Your task to perform on an android device: open the mobile data screen to see how much data has been used Image 0: 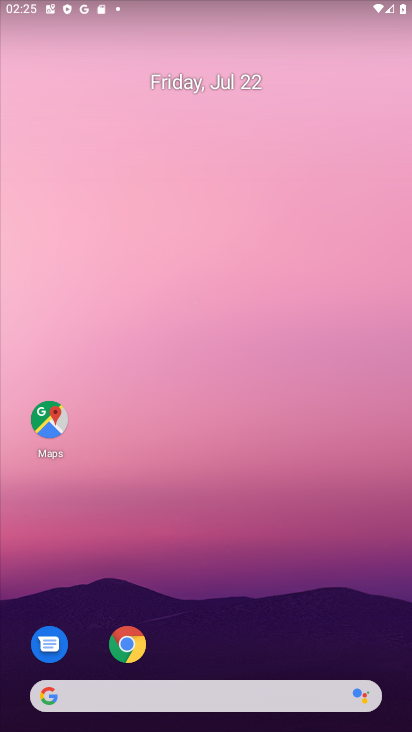
Step 0: drag from (76, 716) to (216, 38)
Your task to perform on an android device: open the mobile data screen to see how much data has been used Image 1: 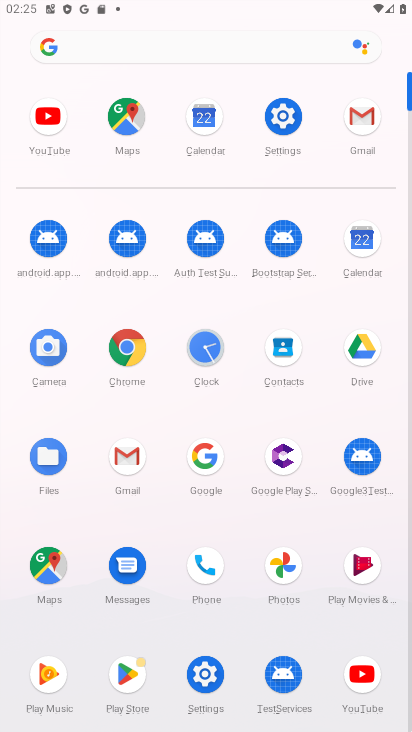
Step 1: click (279, 101)
Your task to perform on an android device: open the mobile data screen to see how much data has been used Image 2: 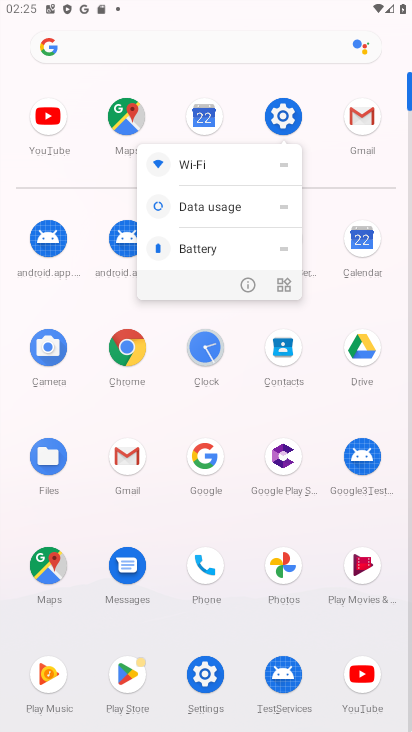
Step 2: click (279, 101)
Your task to perform on an android device: open the mobile data screen to see how much data has been used Image 3: 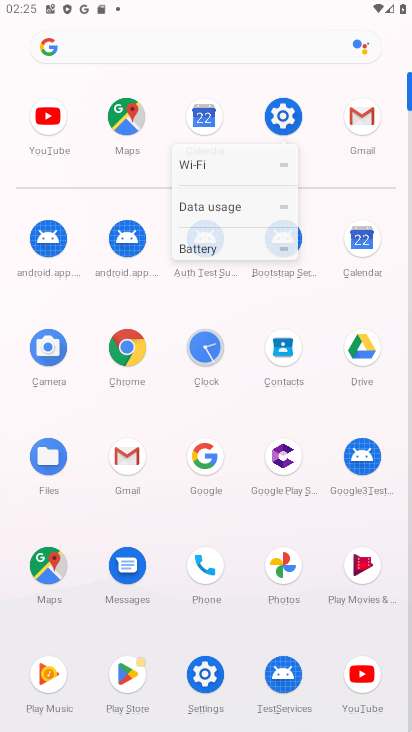
Step 3: click (279, 101)
Your task to perform on an android device: open the mobile data screen to see how much data has been used Image 4: 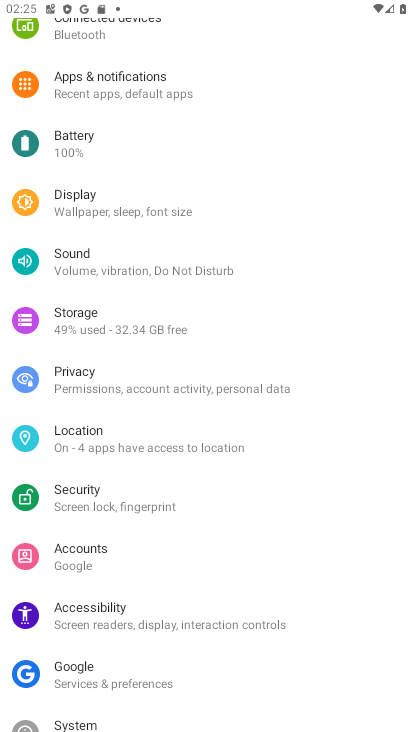
Step 4: drag from (204, 66) to (146, 729)
Your task to perform on an android device: open the mobile data screen to see how much data has been used Image 5: 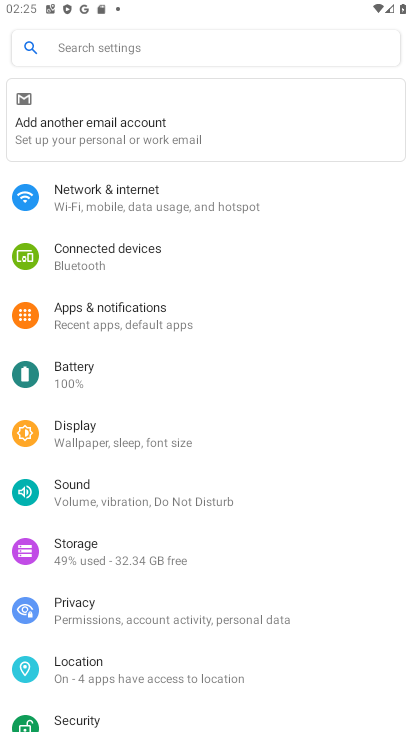
Step 5: click (188, 223)
Your task to perform on an android device: open the mobile data screen to see how much data has been used Image 6: 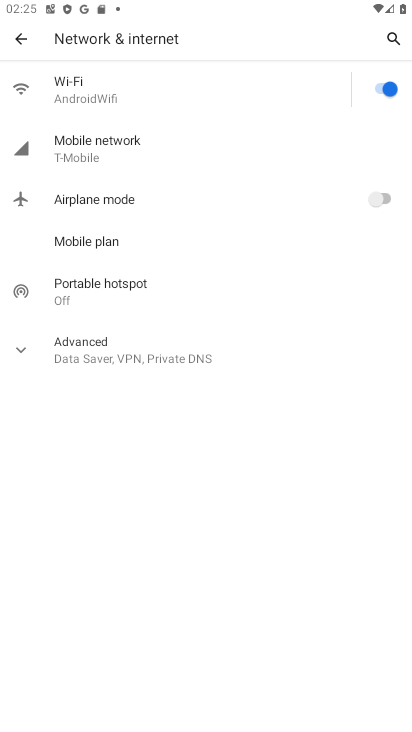
Step 6: click (115, 145)
Your task to perform on an android device: open the mobile data screen to see how much data has been used Image 7: 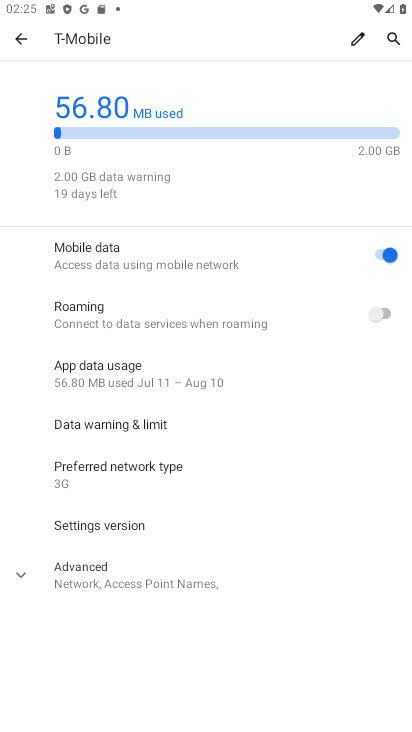
Step 7: task complete